Your task to perform on an android device: Check the news Image 0: 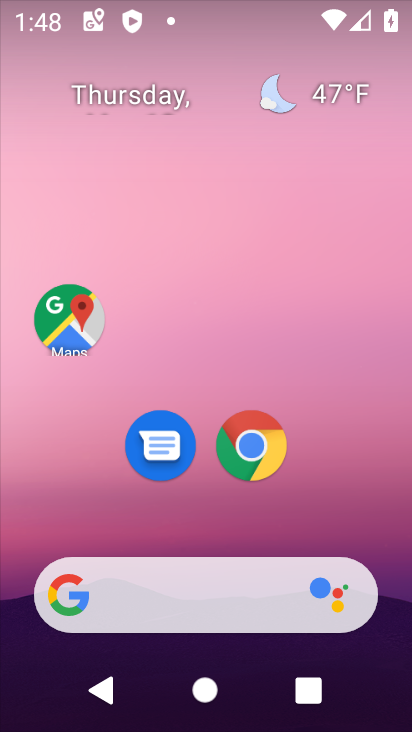
Step 0: drag from (231, 419) to (274, 162)
Your task to perform on an android device: Check the news Image 1: 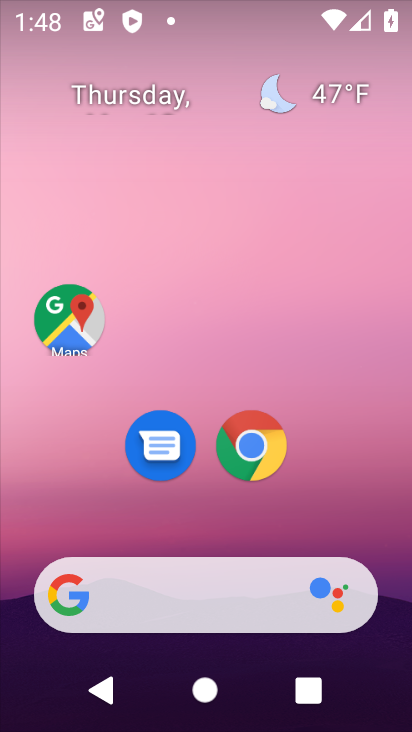
Step 1: drag from (200, 416) to (251, 154)
Your task to perform on an android device: Check the news Image 2: 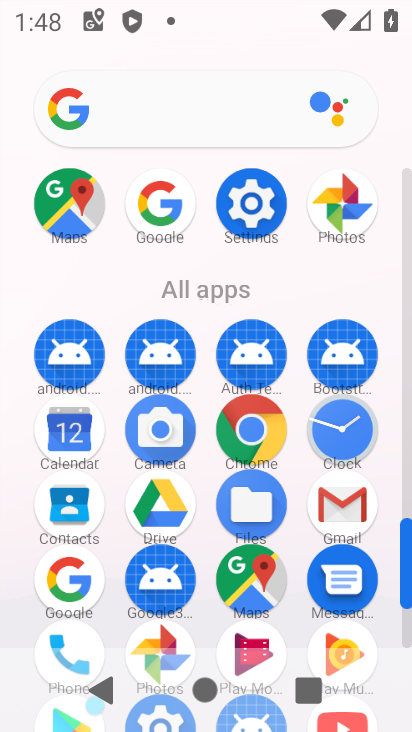
Step 2: drag from (156, 576) to (214, 361)
Your task to perform on an android device: Check the news Image 3: 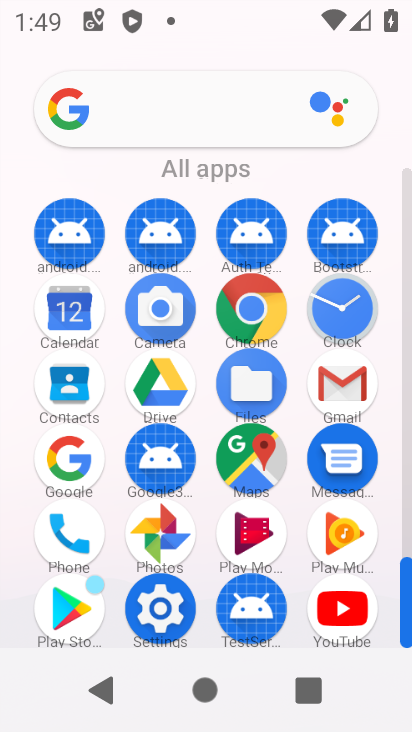
Step 3: drag from (198, 558) to (225, 333)
Your task to perform on an android device: Check the news Image 4: 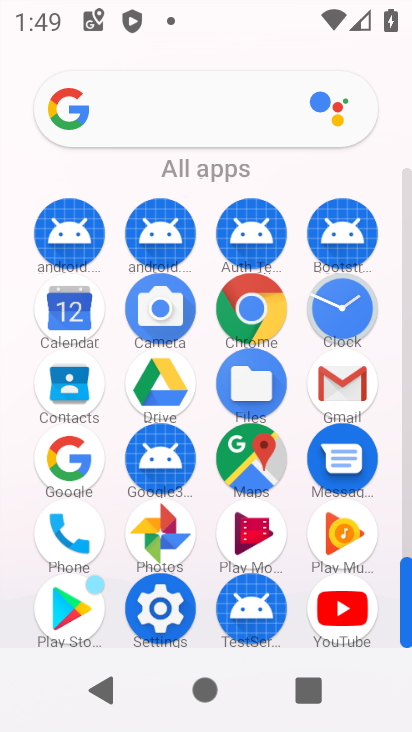
Step 4: click (94, 460)
Your task to perform on an android device: Check the news Image 5: 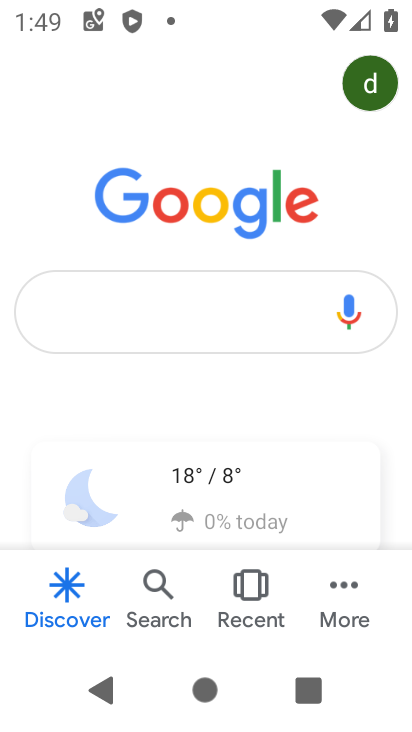
Step 5: click (168, 313)
Your task to perform on an android device: Check the news Image 6: 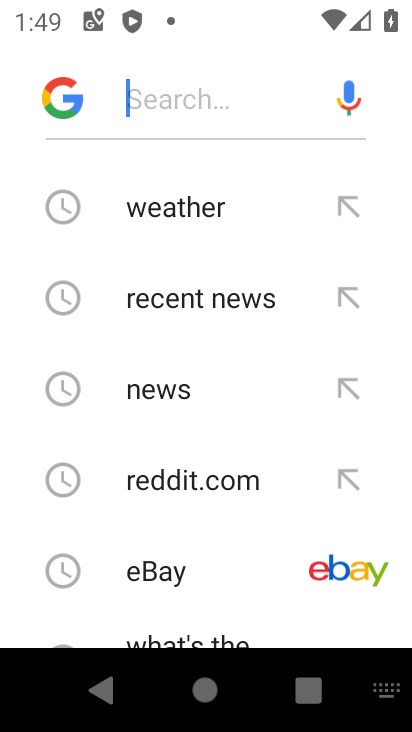
Step 6: click (170, 383)
Your task to perform on an android device: Check the news Image 7: 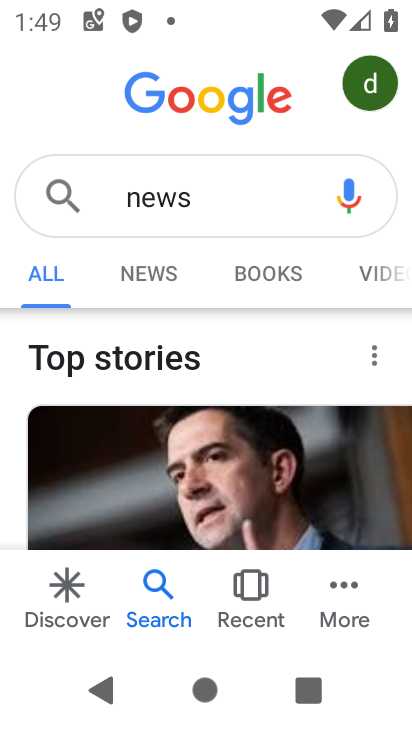
Step 7: click (168, 276)
Your task to perform on an android device: Check the news Image 8: 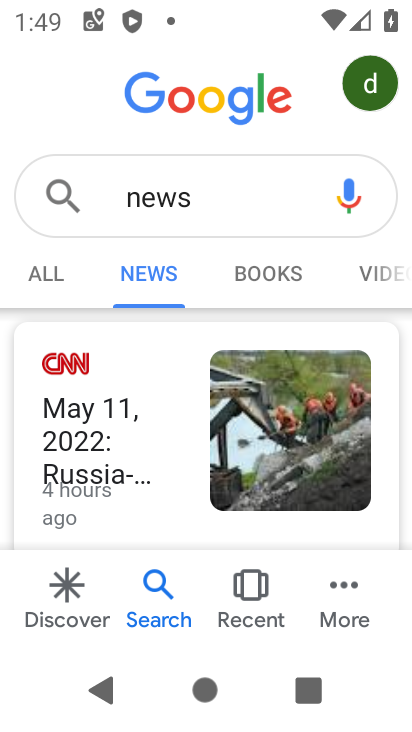
Step 8: task complete